Your task to perform on an android device: Search for sushi restaurants on Maps Image 0: 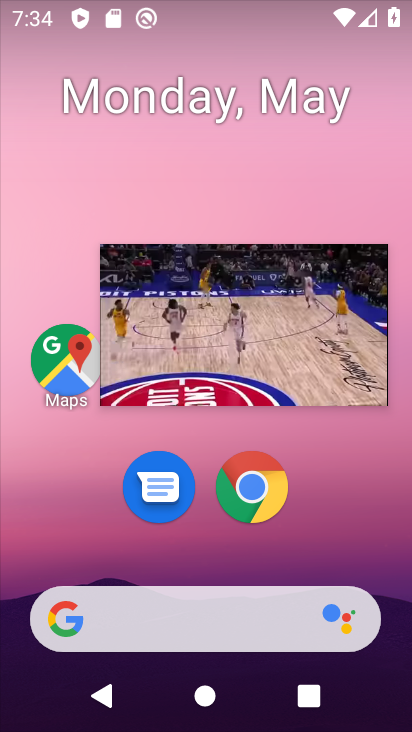
Step 0: drag from (359, 533) to (381, 166)
Your task to perform on an android device: Search for sushi restaurants on Maps Image 1: 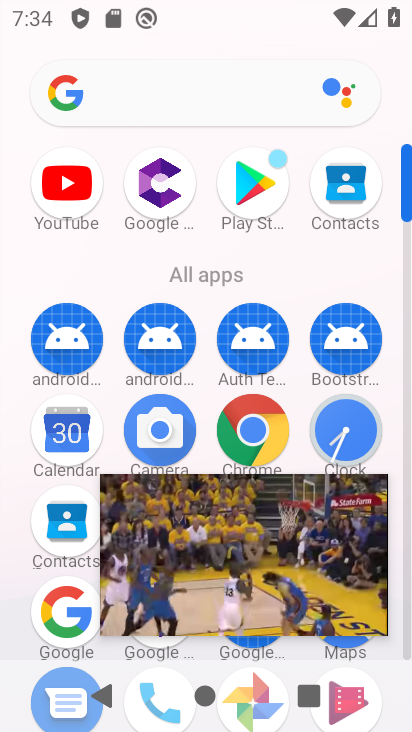
Step 1: drag from (389, 428) to (390, 213)
Your task to perform on an android device: Search for sushi restaurants on Maps Image 2: 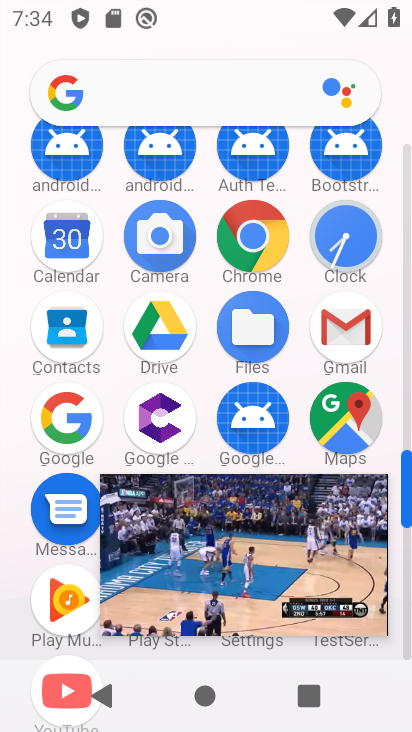
Step 2: click (355, 411)
Your task to perform on an android device: Search for sushi restaurants on Maps Image 3: 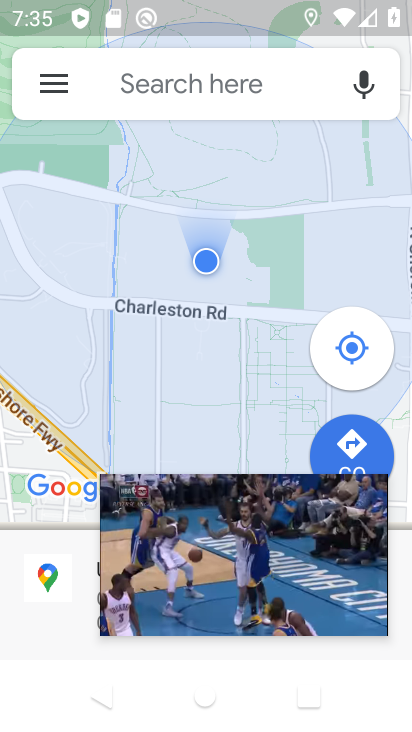
Step 3: click (213, 83)
Your task to perform on an android device: Search for sushi restaurants on Maps Image 4: 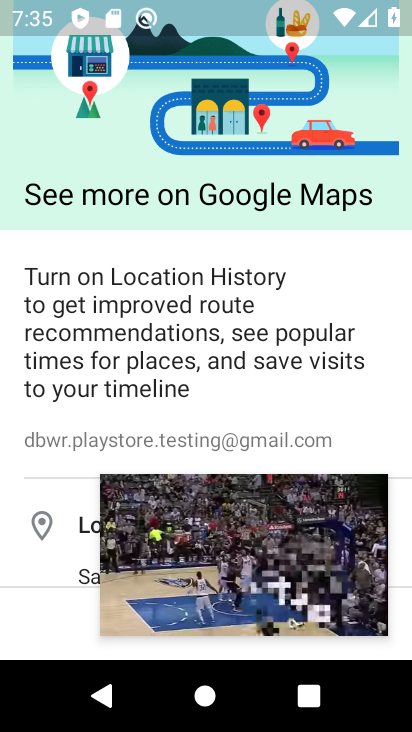
Step 4: drag from (70, 309) to (54, 442)
Your task to perform on an android device: Search for sushi restaurants on Maps Image 5: 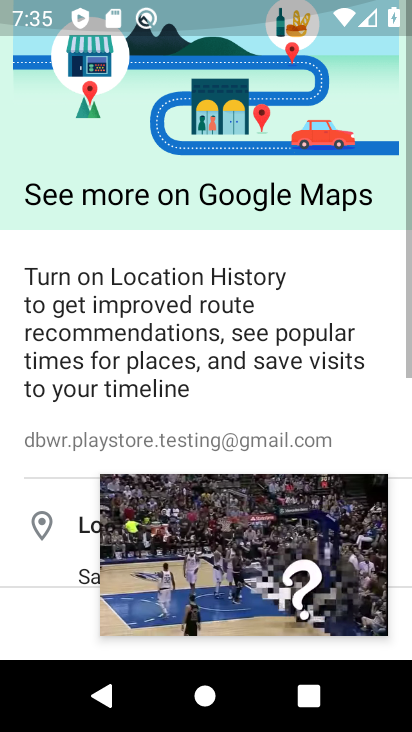
Step 5: drag from (167, 524) to (80, 729)
Your task to perform on an android device: Search for sushi restaurants on Maps Image 6: 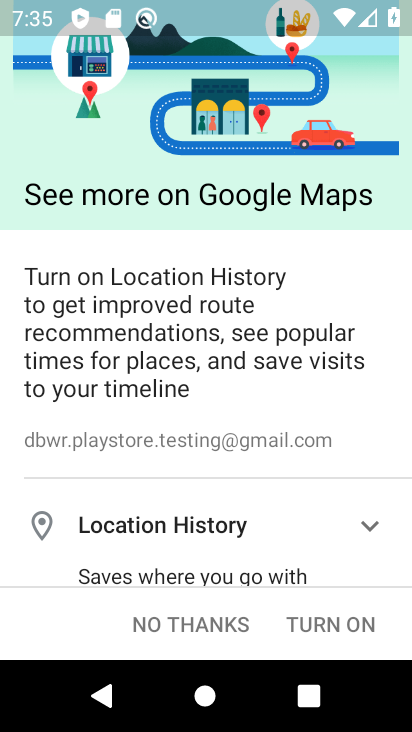
Step 6: click (187, 622)
Your task to perform on an android device: Search for sushi restaurants on Maps Image 7: 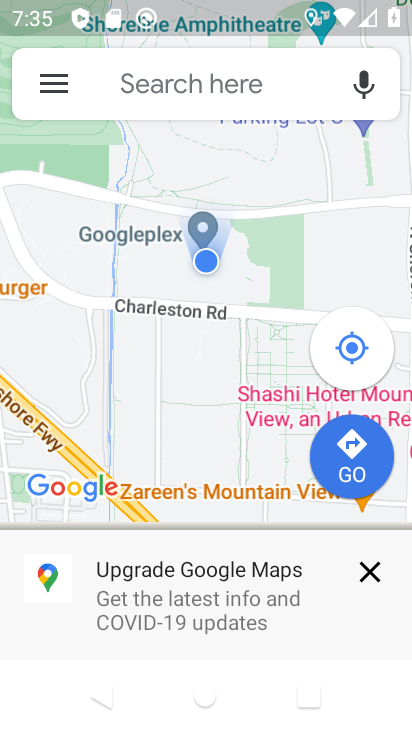
Step 7: click (244, 91)
Your task to perform on an android device: Search for sushi restaurants on Maps Image 8: 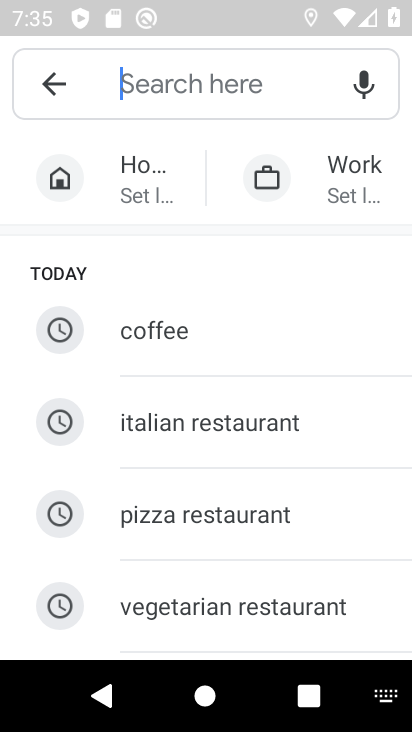
Step 8: type "sushi restaurants"
Your task to perform on an android device: Search for sushi restaurants on Maps Image 9: 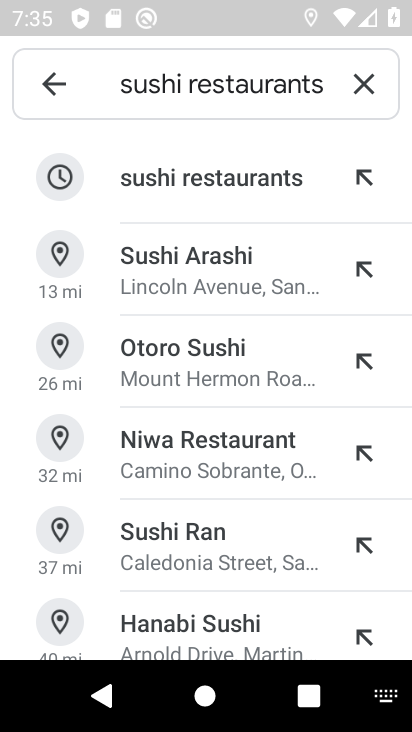
Step 9: click (265, 198)
Your task to perform on an android device: Search for sushi restaurants on Maps Image 10: 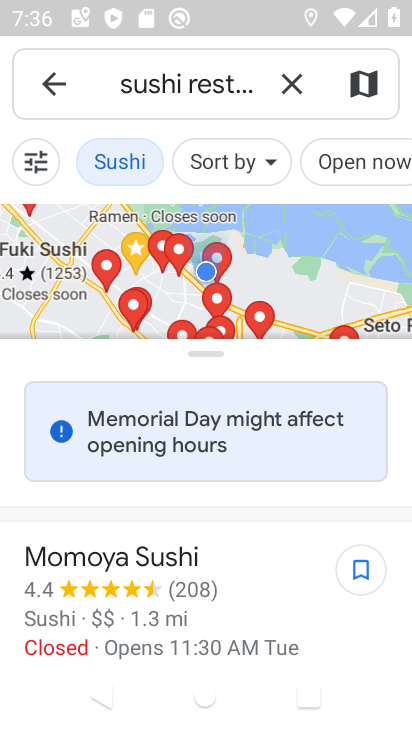
Step 10: task complete